Your task to perform on an android device: Open Chrome and go to settings Image 0: 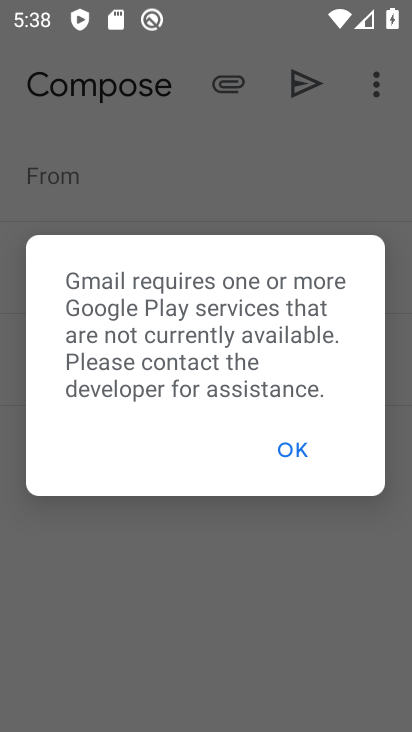
Step 0: press home button
Your task to perform on an android device: Open Chrome and go to settings Image 1: 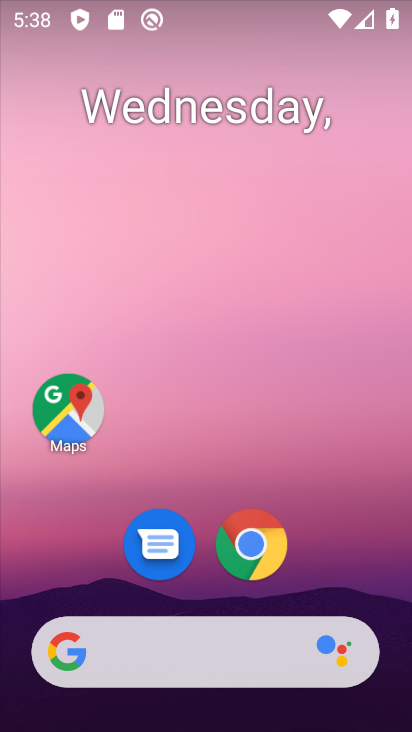
Step 1: click (250, 544)
Your task to perform on an android device: Open Chrome and go to settings Image 2: 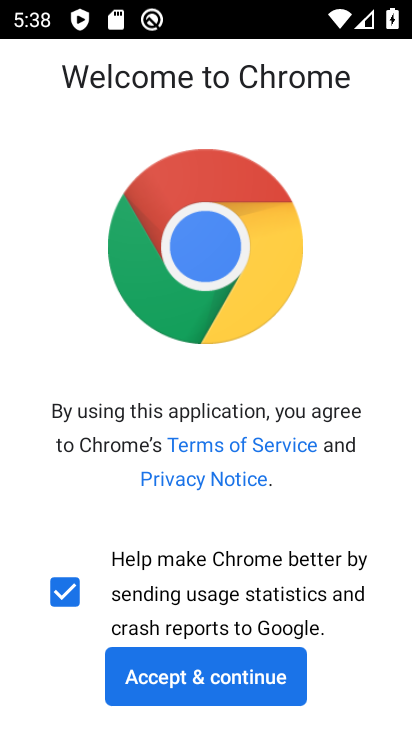
Step 2: click (263, 658)
Your task to perform on an android device: Open Chrome and go to settings Image 3: 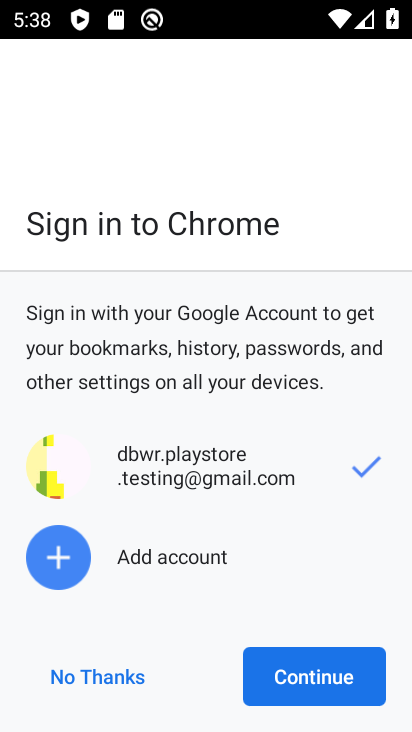
Step 3: click (347, 673)
Your task to perform on an android device: Open Chrome and go to settings Image 4: 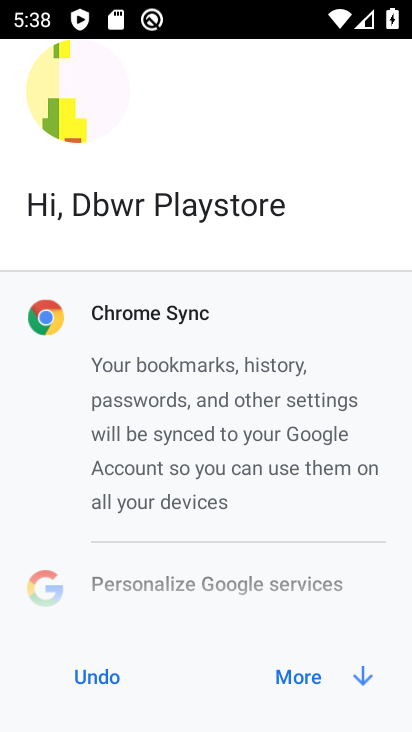
Step 4: click (348, 673)
Your task to perform on an android device: Open Chrome and go to settings Image 5: 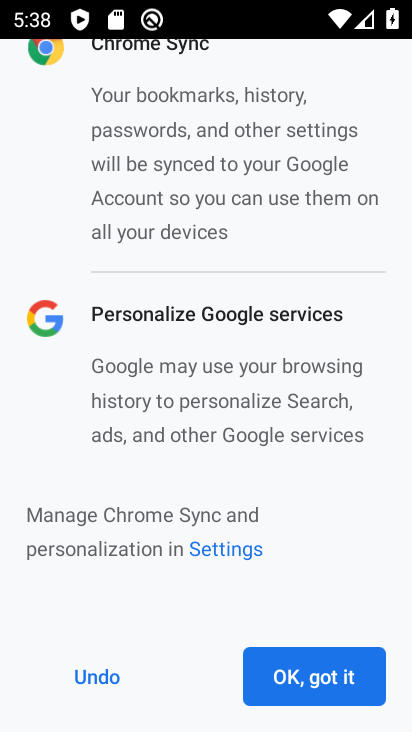
Step 5: click (345, 671)
Your task to perform on an android device: Open Chrome and go to settings Image 6: 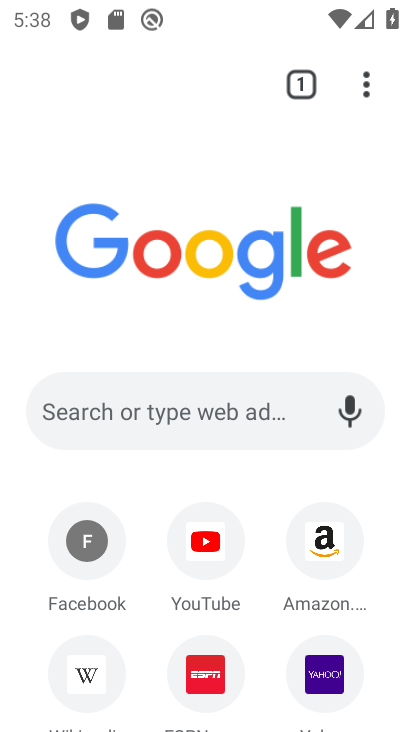
Step 6: click (361, 89)
Your task to perform on an android device: Open Chrome and go to settings Image 7: 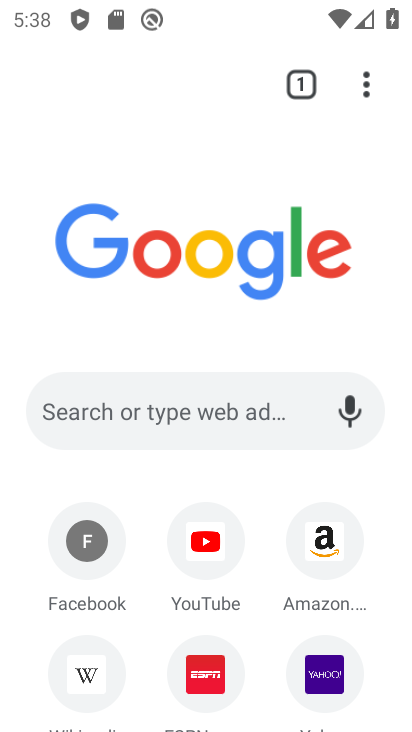
Step 7: click (367, 78)
Your task to perform on an android device: Open Chrome and go to settings Image 8: 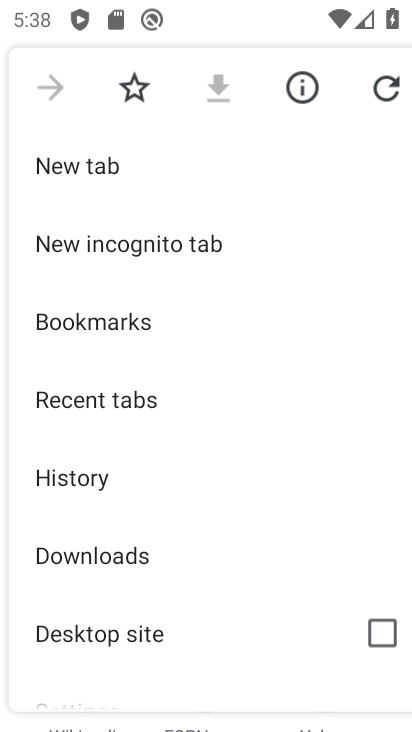
Step 8: drag from (234, 573) to (237, 127)
Your task to perform on an android device: Open Chrome and go to settings Image 9: 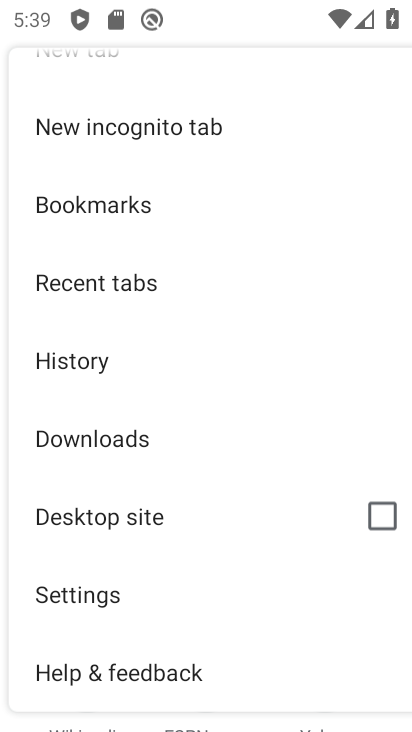
Step 9: drag from (207, 618) to (201, 383)
Your task to perform on an android device: Open Chrome and go to settings Image 10: 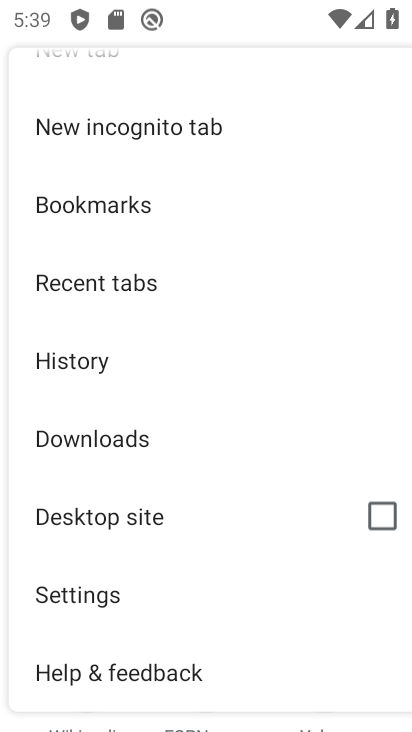
Step 10: click (161, 591)
Your task to perform on an android device: Open Chrome and go to settings Image 11: 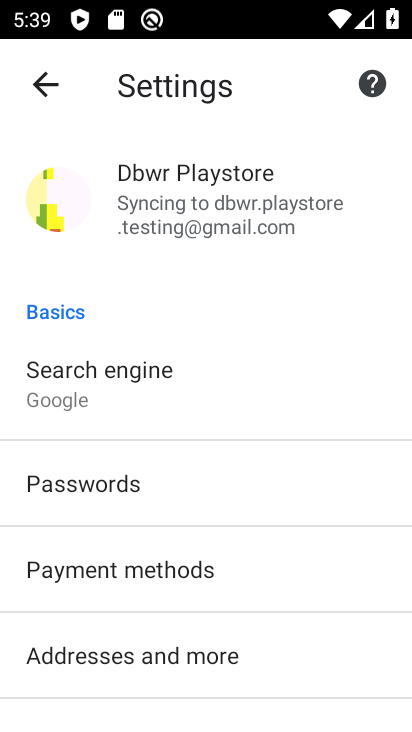
Step 11: task complete